Your task to perform on an android device: Go to Reddit.com Image 0: 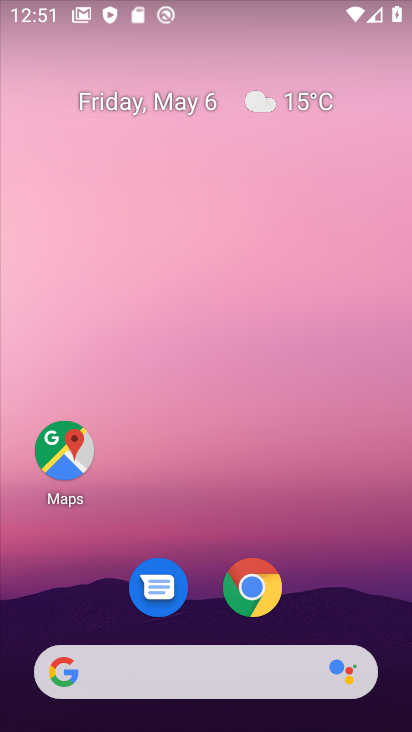
Step 0: click (254, 592)
Your task to perform on an android device: Go to Reddit.com Image 1: 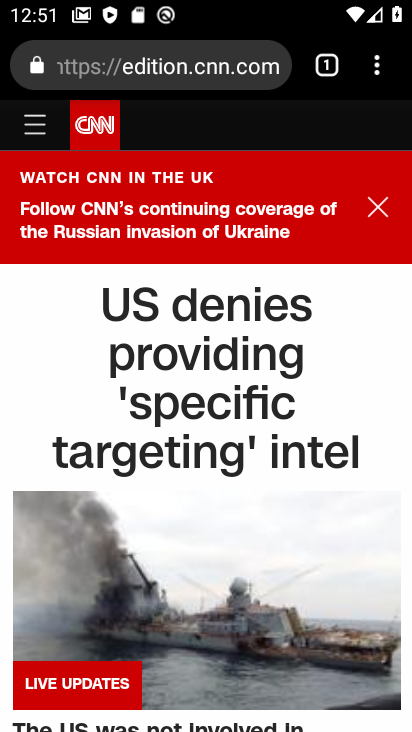
Step 1: click (161, 79)
Your task to perform on an android device: Go to Reddit.com Image 2: 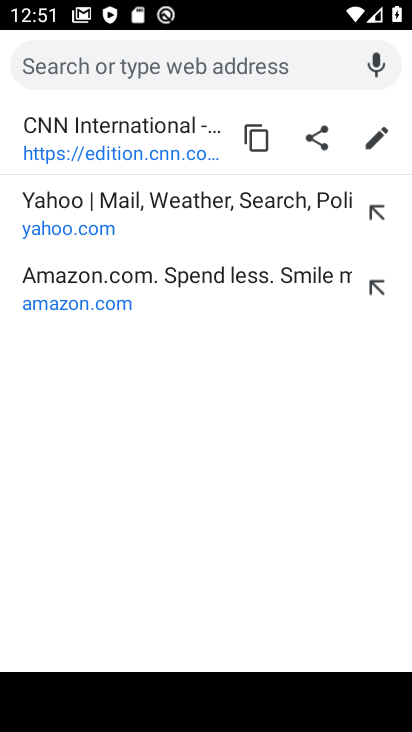
Step 2: click (205, 72)
Your task to perform on an android device: Go to Reddit.com Image 3: 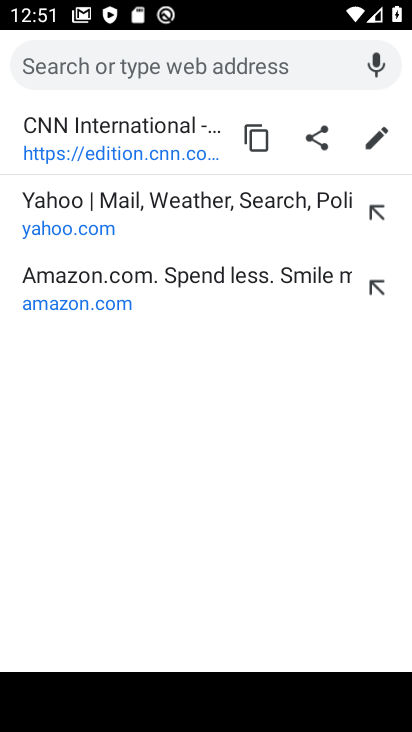
Step 3: type "www.reddit.com"
Your task to perform on an android device: Go to Reddit.com Image 4: 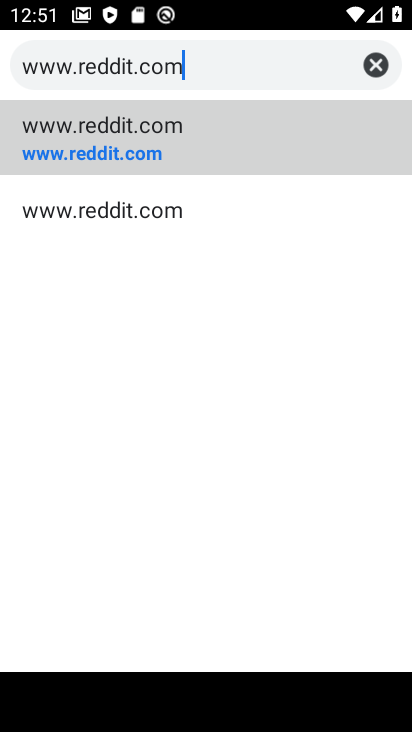
Step 4: click (106, 146)
Your task to perform on an android device: Go to Reddit.com Image 5: 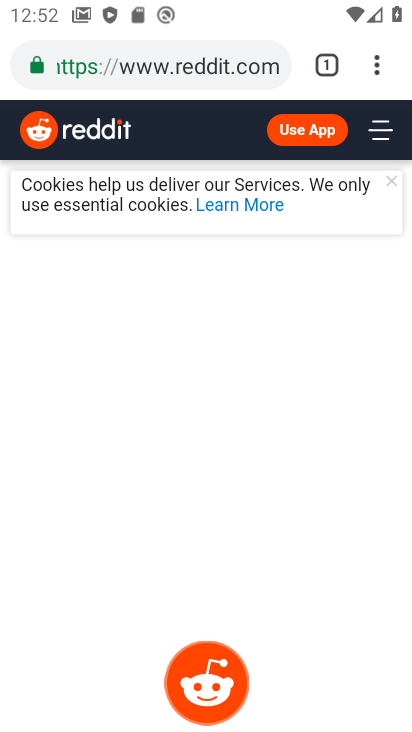
Step 5: task complete